Your task to perform on an android device: Clear the cart on newegg.com. Image 0: 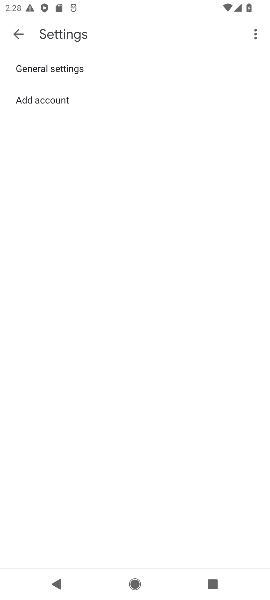
Step 0: press home button
Your task to perform on an android device: Clear the cart on newegg.com. Image 1: 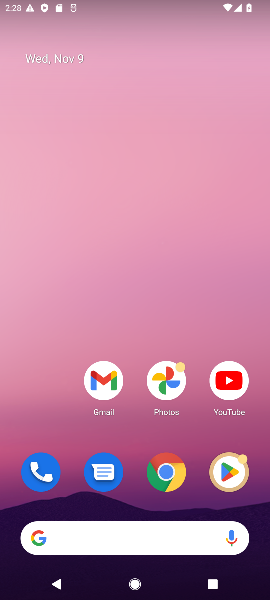
Step 1: click (85, 545)
Your task to perform on an android device: Clear the cart on newegg.com. Image 2: 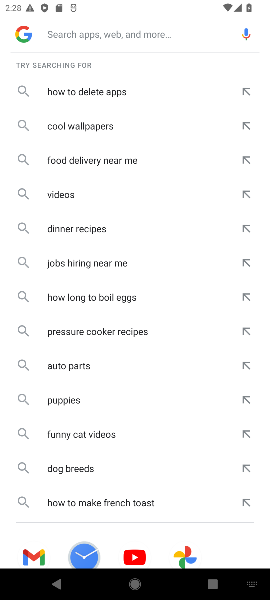
Step 2: type "newegg.com"
Your task to perform on an android device: Clear the cart on newegg.com. Image 3: 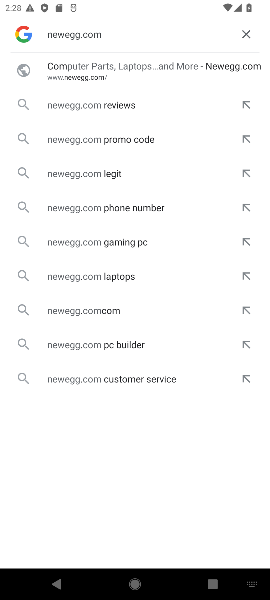
Step 3: click (57, 312)
Your task to perform on an android device: Clear the cart on newegg.com. Image 4: 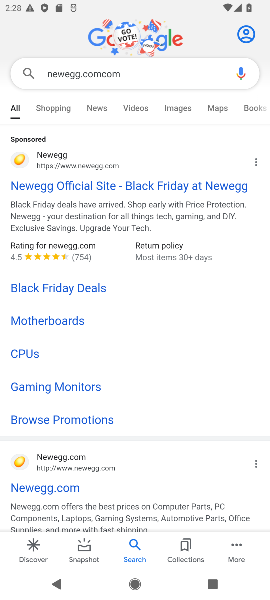
Step 4: click (55, 152)
Your task to perform on an android device: Clear the cart on newegg.com. Image 5: 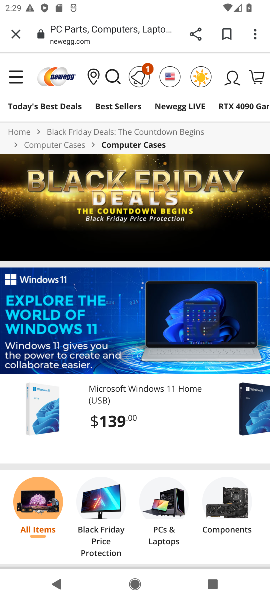
Step 5: click (255, 71)
Your task to perform on an android device: Clear the cart on newegg.com. Image 6: 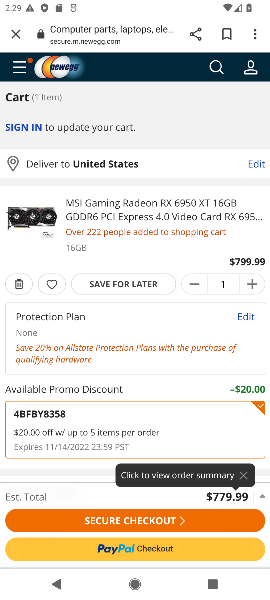
Step 6: click (192, 283)
Your task to perform on an android device: Clear the cart on newegg.com. Image 7: 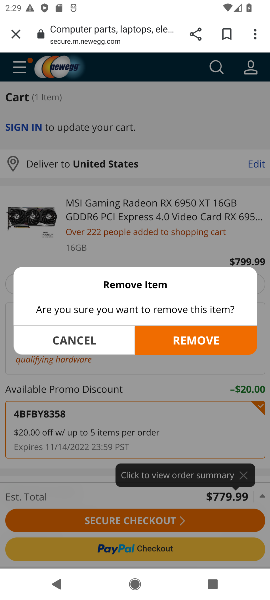
Step 7: click (188, 340)
Your task to perform on an android device: Clear the cart on newegg.com. Image 8: 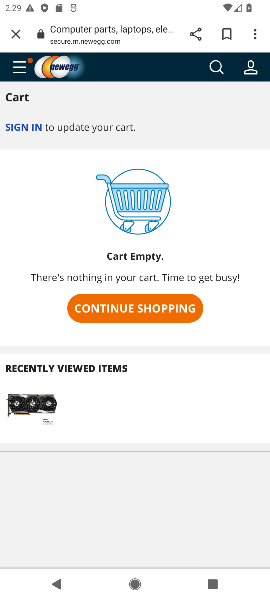
Step 8: task complete